Your task to perform on an android device: move a message to another label in the gmail app Image 0: 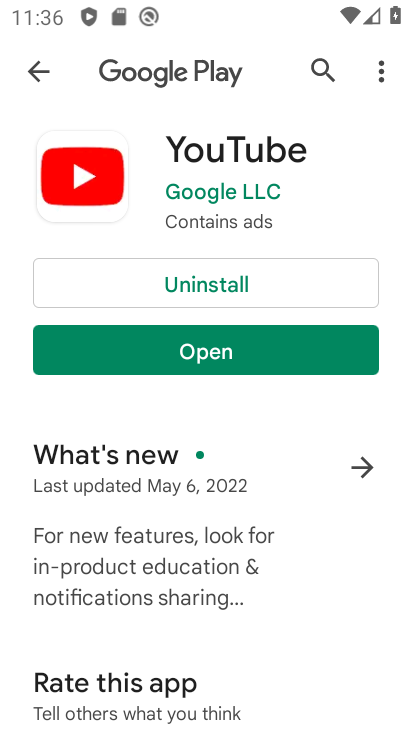
Step 0: press home button
Your task to perform on an android device: move a message to another label in the gmail app Image 1: 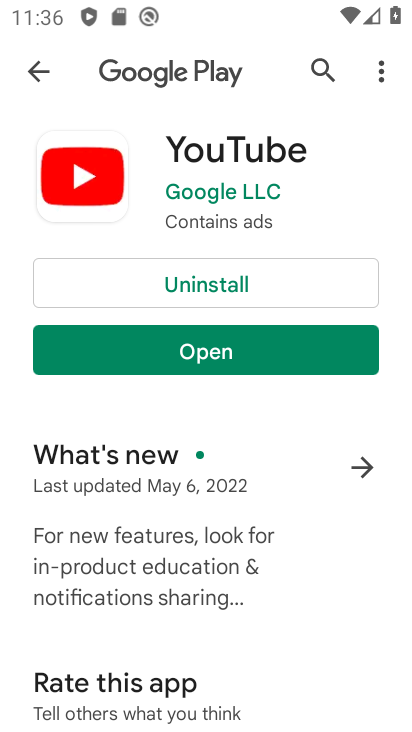
Step 1: press home button
Your task to perform on an android device: move a message to another label in the gmail app Image 2: 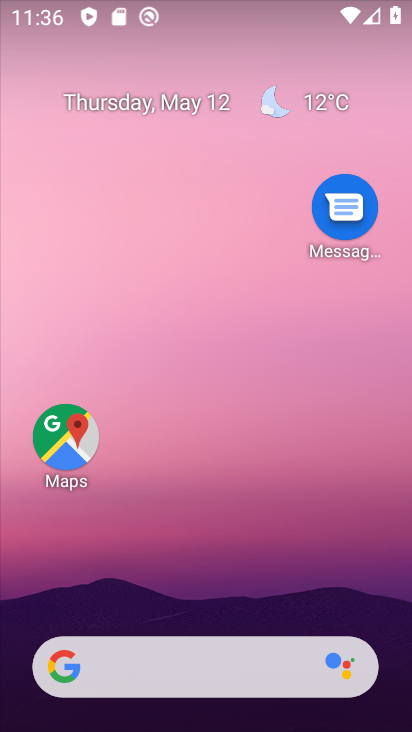
Step 2: drag from (253, 600) to (235, 95)
Your task to perform on an android device: move a message to another label in the gmail app Image 3: 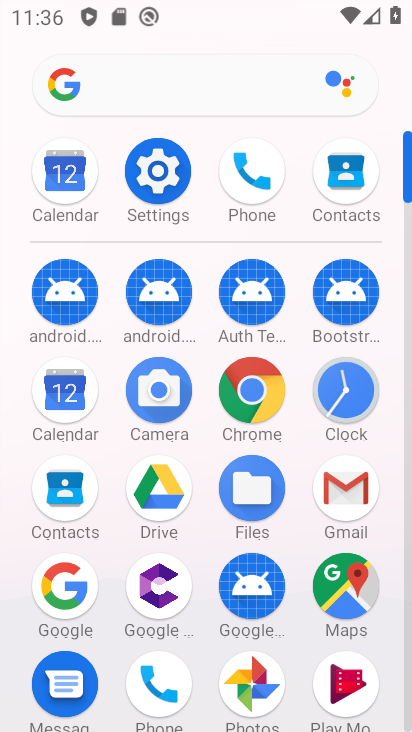
Step 3: click (320, 505)
Your task to perform on an android device: move a message to another label in the gmail app Image 4: 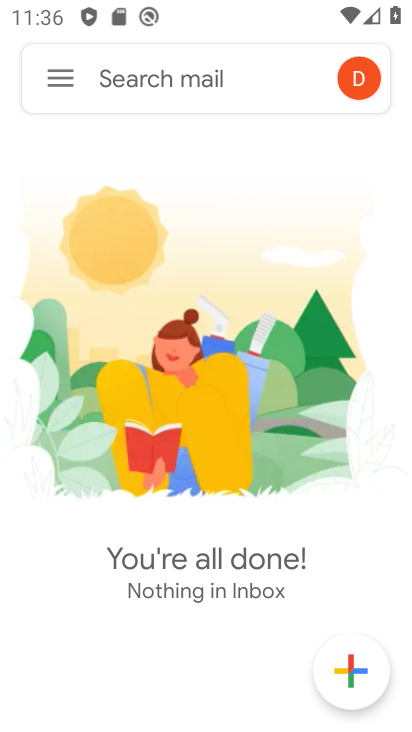
Step 4: click (56, 65)
Your task to perform on an android device: move a message to another label in the gmail app Image 5: 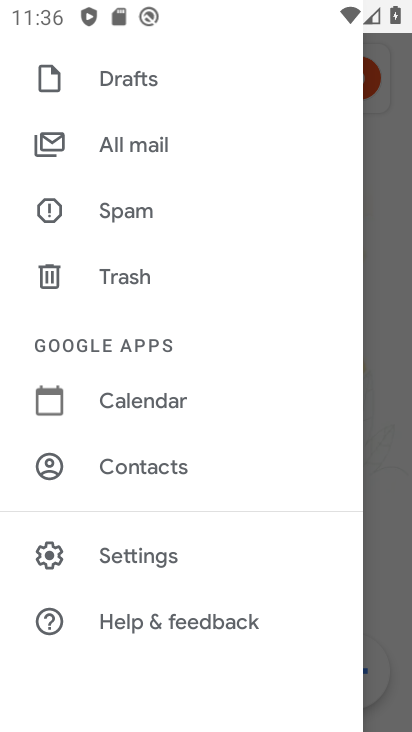
Step 5: task complete